Your task to perform on an android device: Turn on the flashlight Image 0: 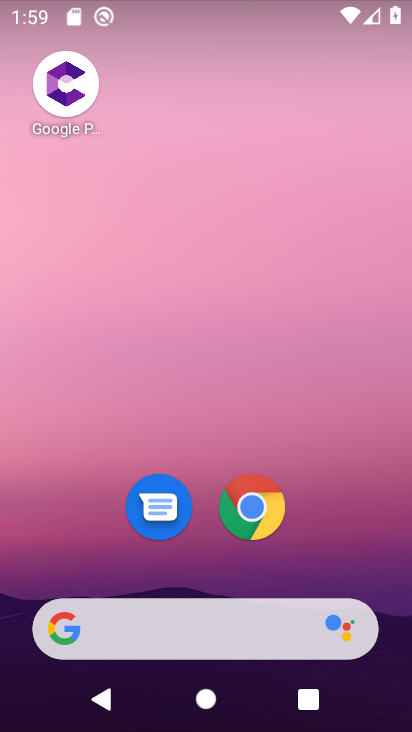
Step 0: press home button
Your task to perform on an android device: Turn on the flashlight Image 1: 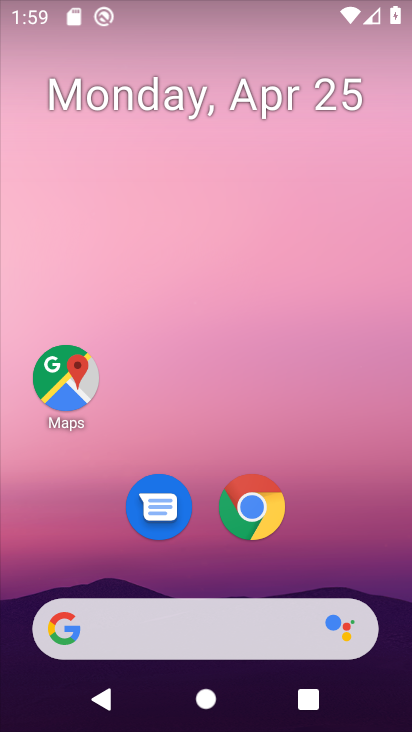
Step 1: task complete